Your task to perform on an android device: Open Google Image 0: 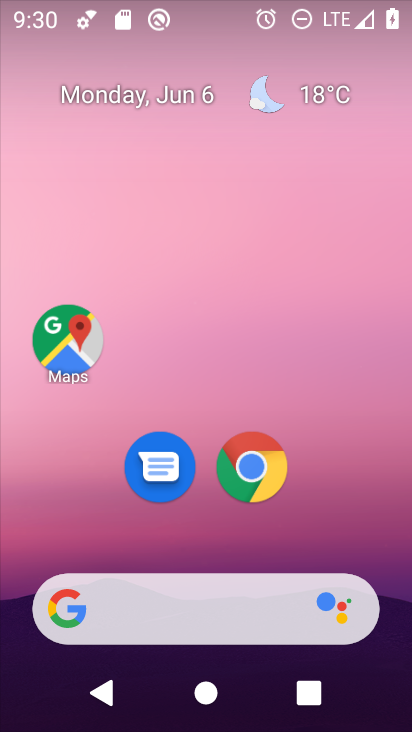
Step 0: drag from (366, 550) to (357, 132)
Your task to perform on an android device: Open Google Image 1: 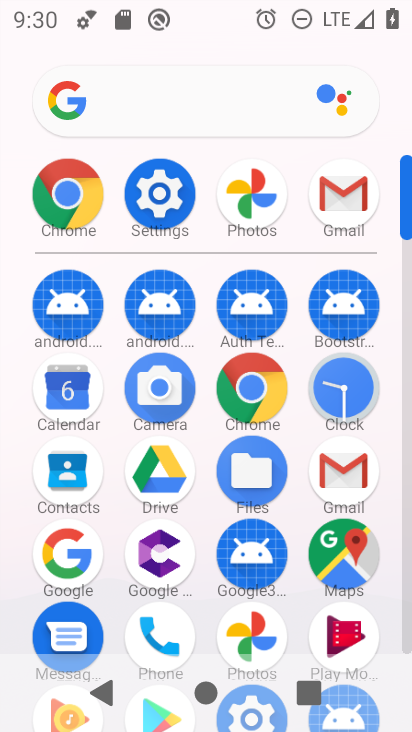
Step 1: click (93, 557)
Your task to perform on an android device: Open Google Image 2: 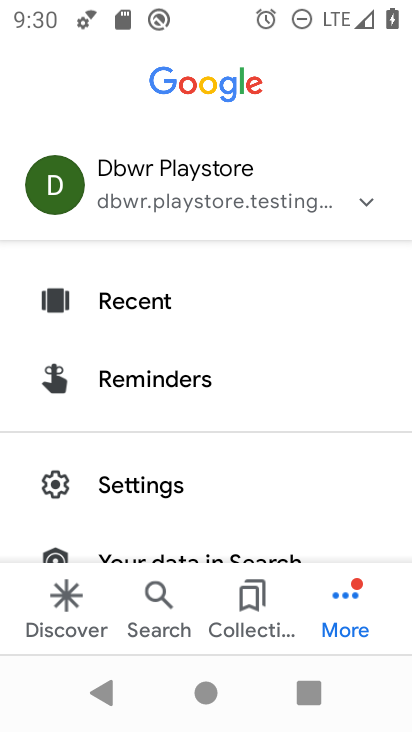
Step 2: task complete